Your task to perform on an android device: Add bose quietcomfort 35 to the cart on costco Image 0: 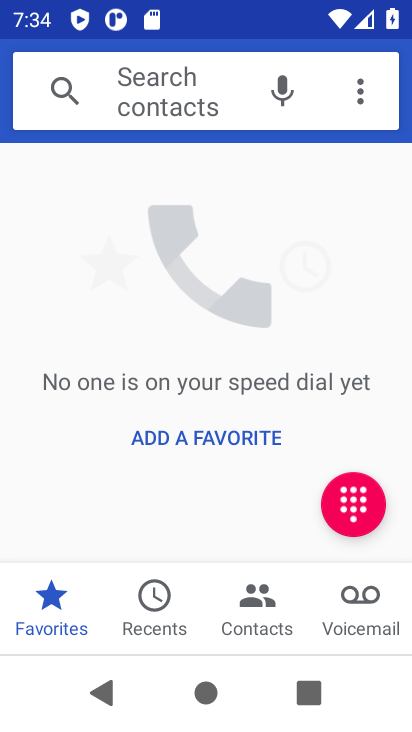
Step 0: press home button
Your task to perform on an android device: Add bose quietcomfort 35 to the cart on costco Image 1: 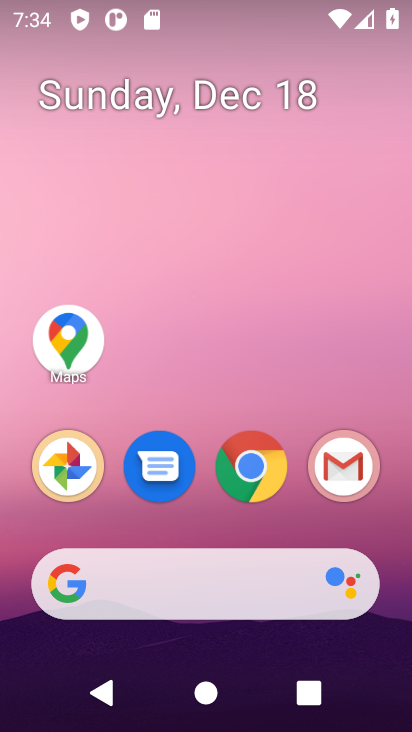
Step 1: click (241, 479)
Your task to perform on an android device: Add bose quietcomfort 35 to the cart on costco Image 2: 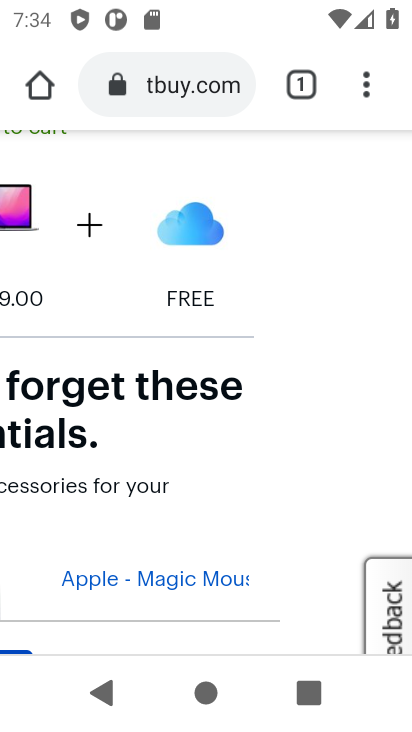
Step 2: click (184, 82)
Your task to perform on an android device: Add bose quietcomfort 35 to the cart on costco Image 3: 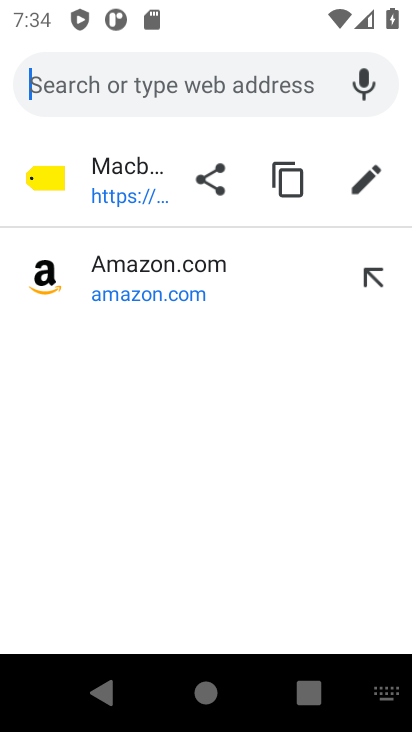
Step 3: type "COSTCO"
Your task to perform on an android device: Add bose quietcomfort 35 to the cart on costco Image 4: 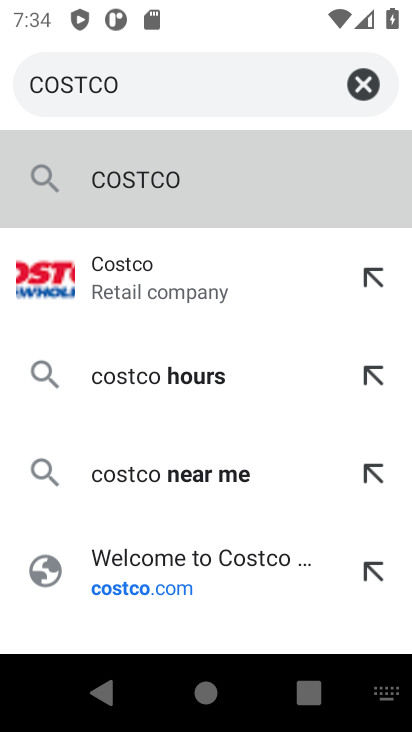
Step 4: click (112, 274)
Your task to perform on an android device: Add bose quietcomfort 35 to the cart on costco Image 5: 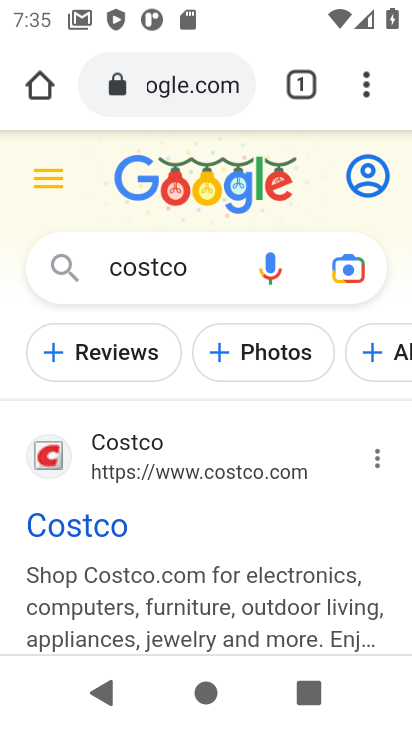
Step 5: click (98, 528)
Your task to perform on an android device: Add bose quietcomfort 35 to the cart on costco Image 6: 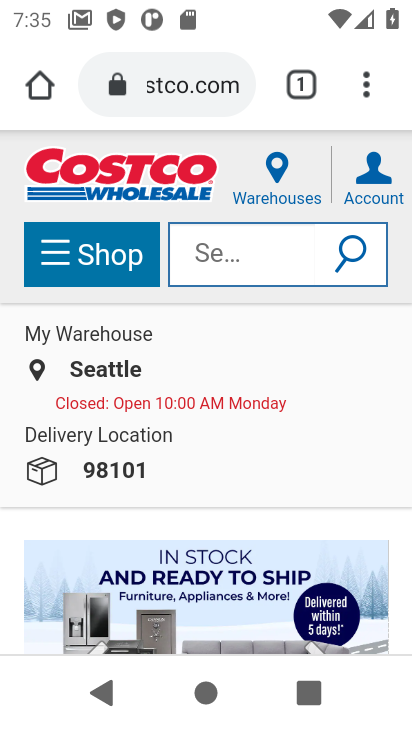
Step 6: click (227, 256)
Your task to perform on an android device: Add bose quietcomfort 35 to the cart on costco Image 7: 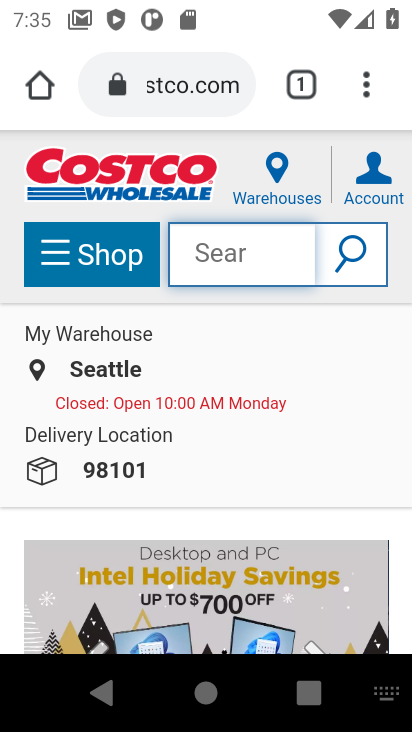
Step 7: type "bose quietcomfort 35"
Your task to perform on an android device: Add bose quietcomfort 35 to the cart on costco Image 8: 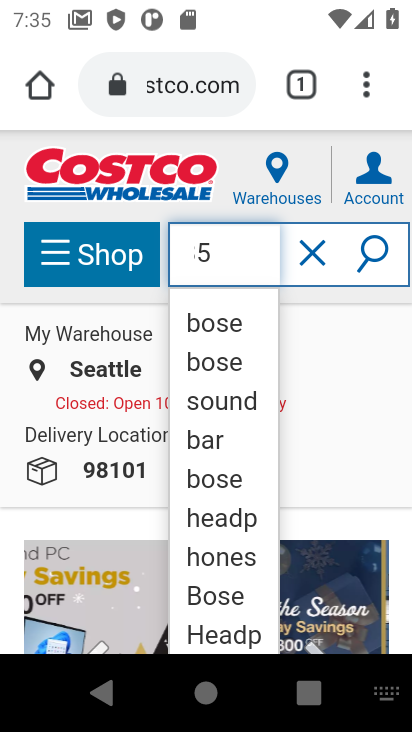
Step 8: click (234, 320)
Your task to perform on an android device: Add bose quietcomfort 35 to the cart on costco Image 9: 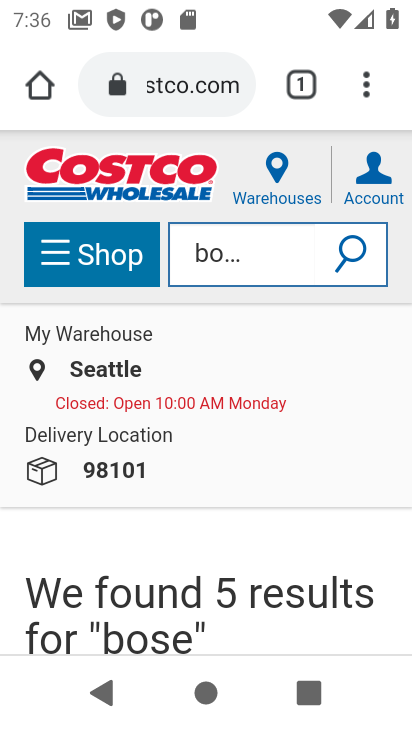
Step 9: drag from (305, 627) to (281, 174)
Your task to perform on an android device: Add bose quietcomfort 35 to the cart on costco Image 10: 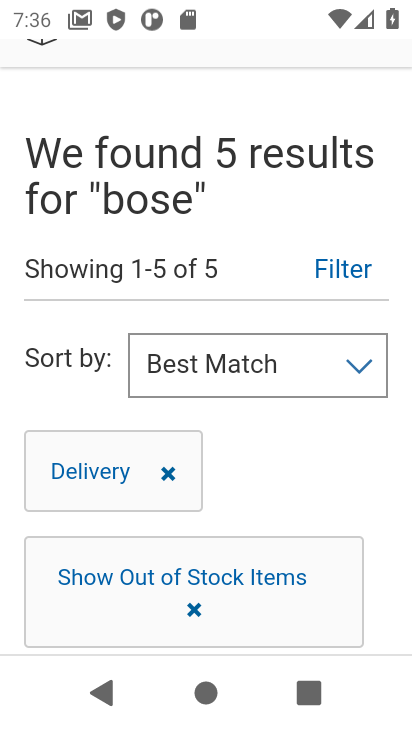
Step 10: drag from (285, 613) to (234, 144)
Your task to perform on an android device: Add bose quietcomfort 35 to the cart on costco Image 11: 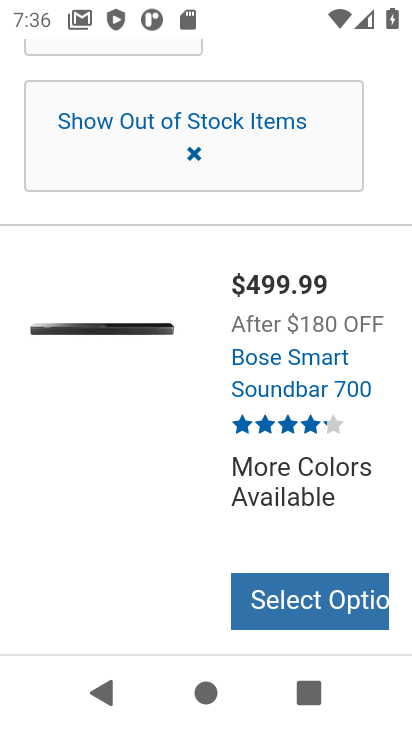
Step 11: click (162, 380)
Your task to perform on an android device: Add bose quietcomfort 35 to the cart on costco Image 12: 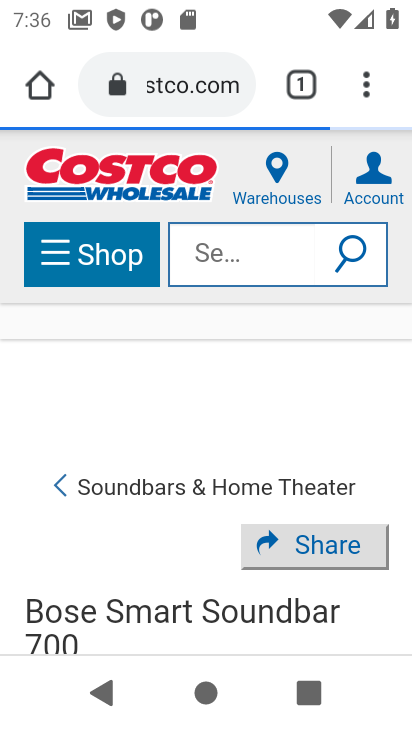
Step 12: drag from (247, 601) to (261, 58)
Your task to perform on an android device: Add bose quietcomfort 35 to the cart on costco Image 13: 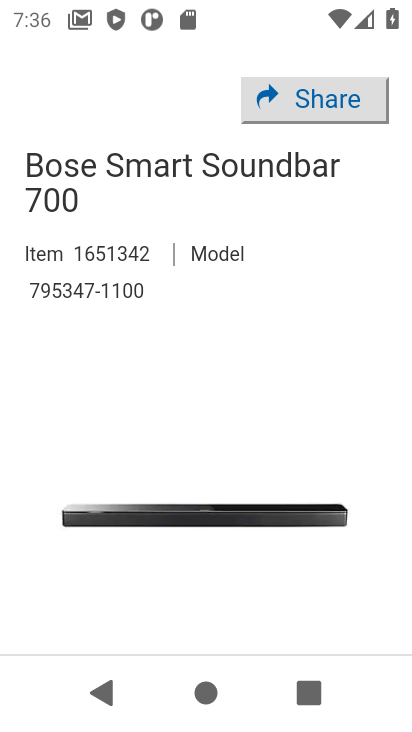
Step 13: drag from (243, 568) to (239, 133)
Your task to perform on an android device: Add bose quietcomfort 35 to the cart on costco Image 14: 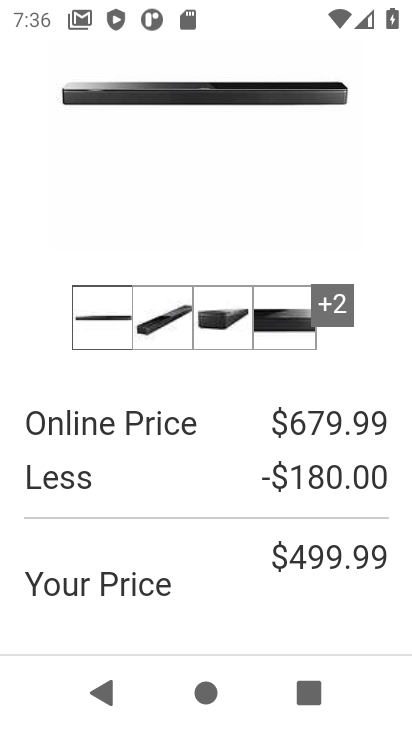
Step 14: drag from (248, 558) to (221, 128)
Your task to perform on an android device: Add bose quietcomfort 35 to the cart on costco Image 15: 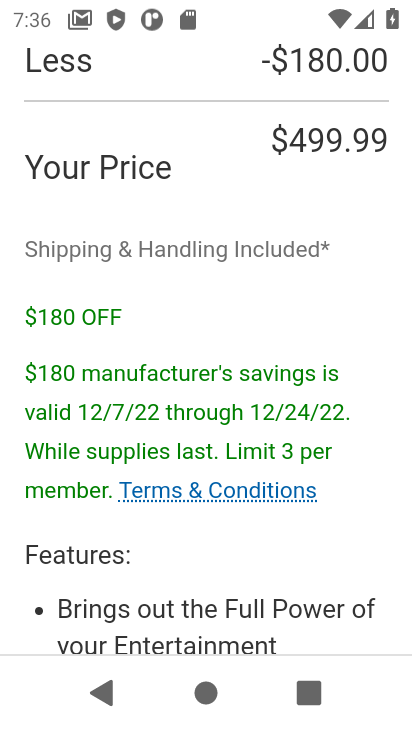
Step 15: drag from (231, 604) to (225, 299)
Your task to perform on an android device: Add bose quietcomfort 35 to the cart on costco Image 16: 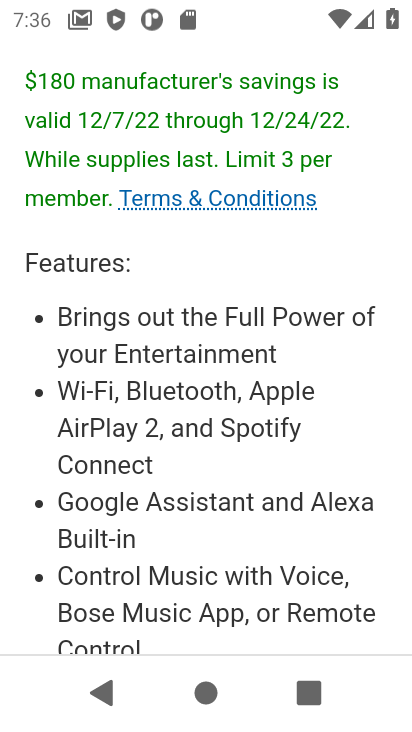
Step 16: drag from (292, 599) to (253, 99)
Your task to perform on an android device: Add bose quietcomfort 35 to the cart on costco Image 17: 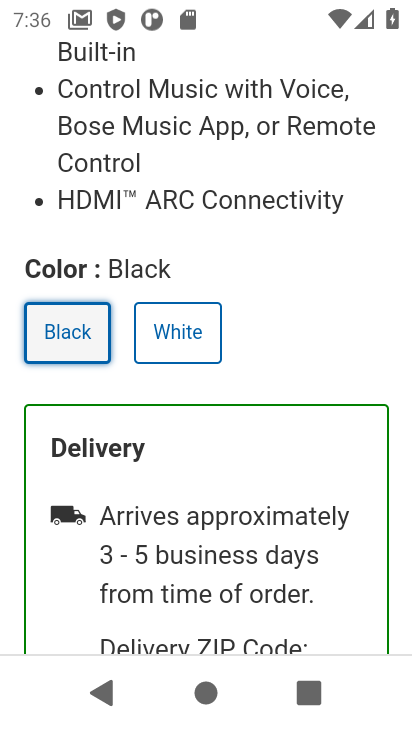
Step 17: drag from (246, 560) to (229, 158)
Your task to perform on an android device: Add bose quietcomfort 35 to the cart on costco Image 18: 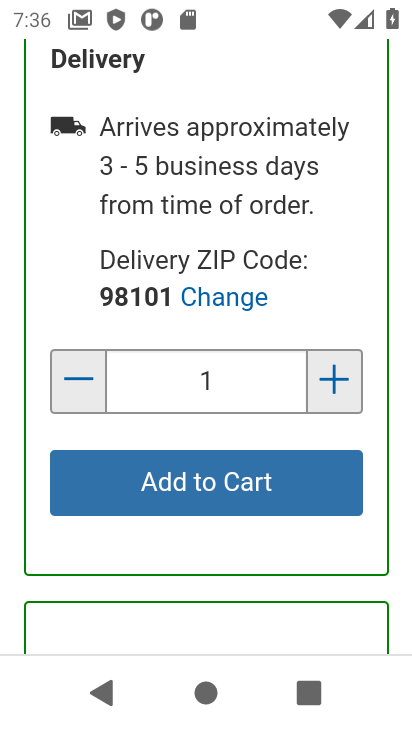
Step 18: click (219, 488)
Your task to perform on an android device: Add bose quietcomfort 35 to the cart on costco Image 19: 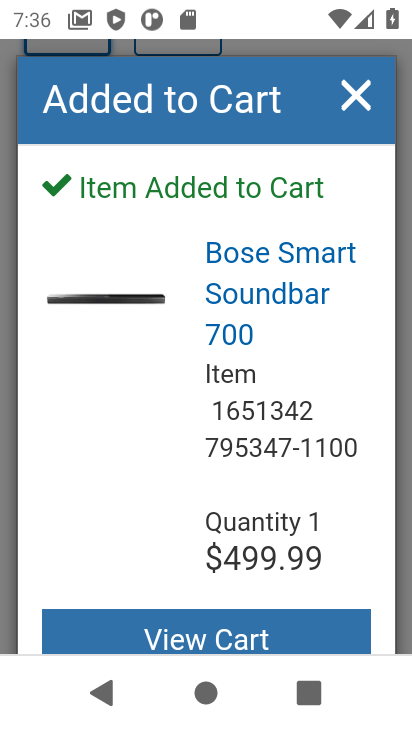
Step 19: task complete